Your task to perform on an android device: Open Google Chrome Image 0: 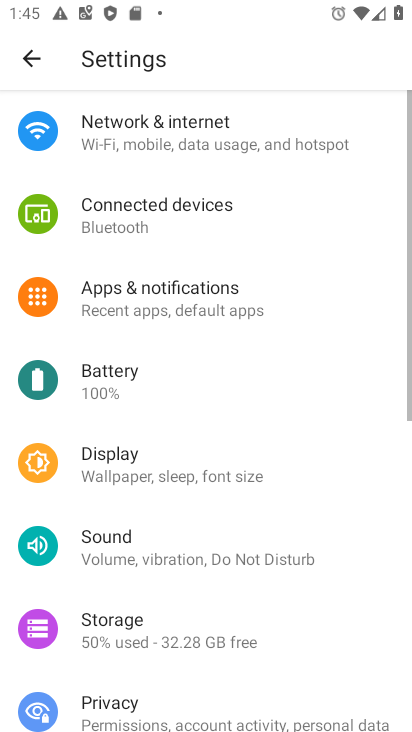
Step 0: press home button
Your task to perform on an android device: Open Google Chrome Image 1: 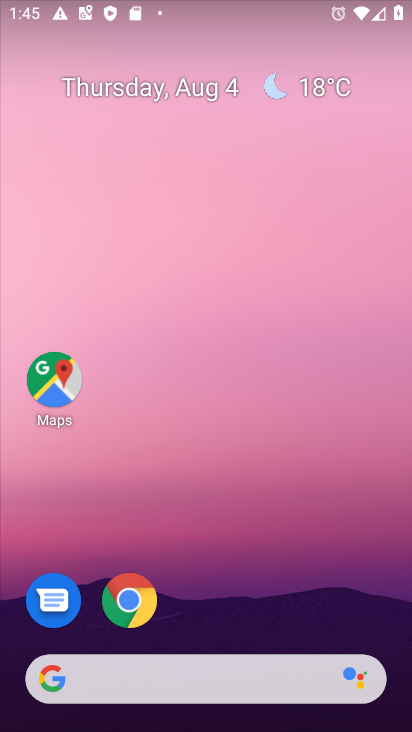
Step 1: click (125, 601)
Your task to perform on an android device: Open Google Chrome Image 2: 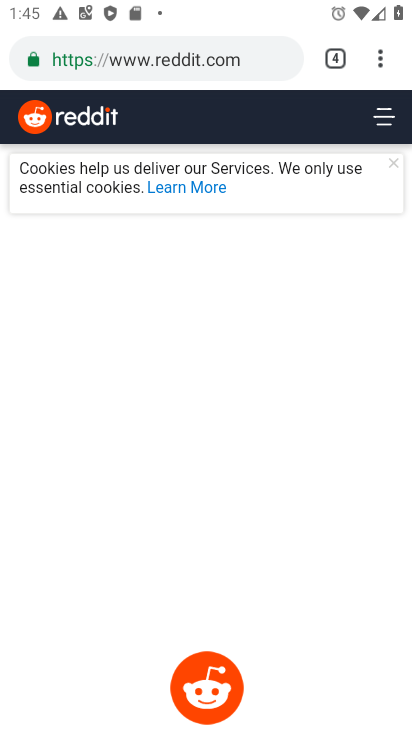
Step 2: task complete